Your task to perform on an android device: turn off priority inbox in the gmail app Image 0: 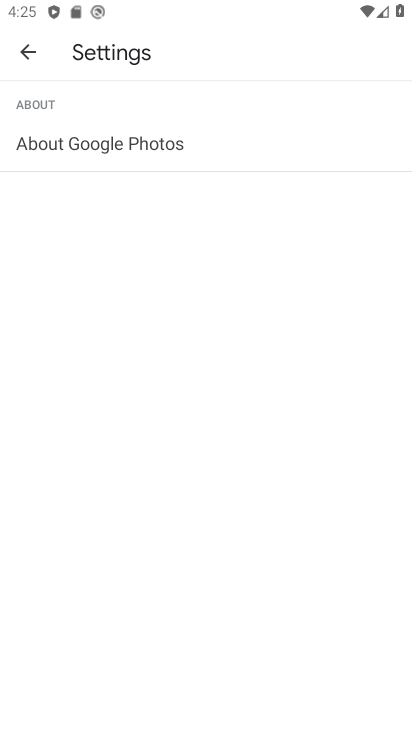
Step 0: press home button
Your task to perform on an android device: turn off priority inbox in the gmail app Image 1: 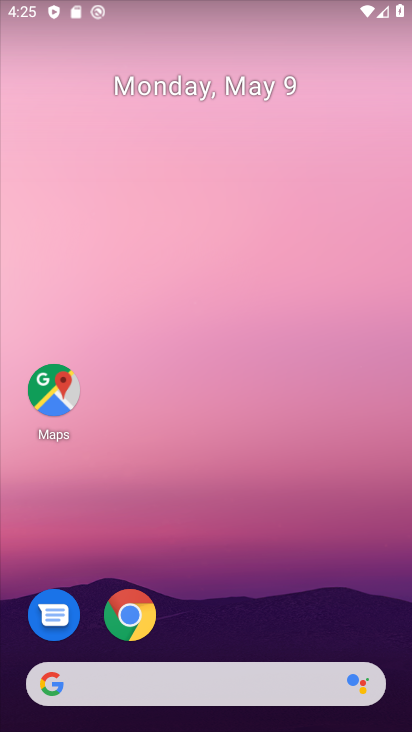
Step 1: drag from (188, 656) to (215, 319)
Your task to perform on an android device: turn off priority inbox in the gmail app Image 2: 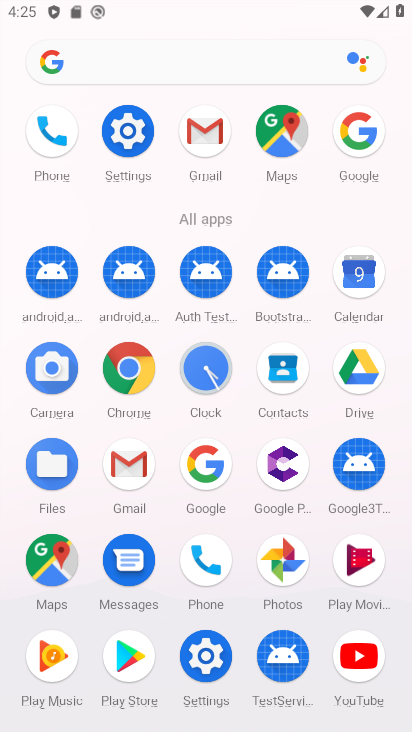
Step 2: click (216, 136)
Your task to perform on an android device: turn off priority inbox in the gmail app Image 3: 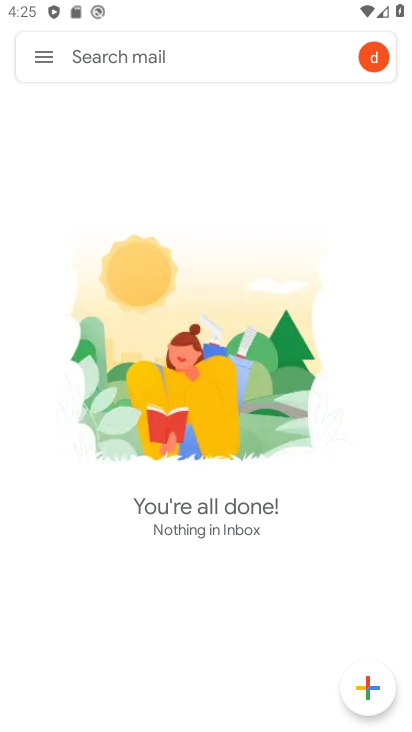
Step 3: click (27, 56)
Your task to perform on an android device: turn off priority inbox in the gmail app Image 4: 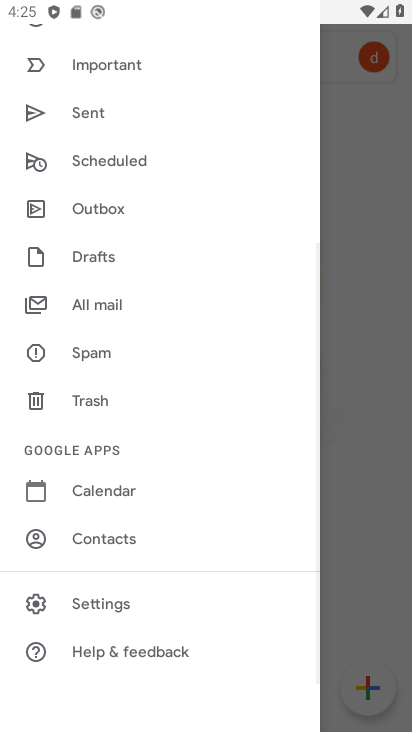
Step 4: click (110, 604)
Your task to perform on an android device: turn off priority inbox in the gmail app Image 5: 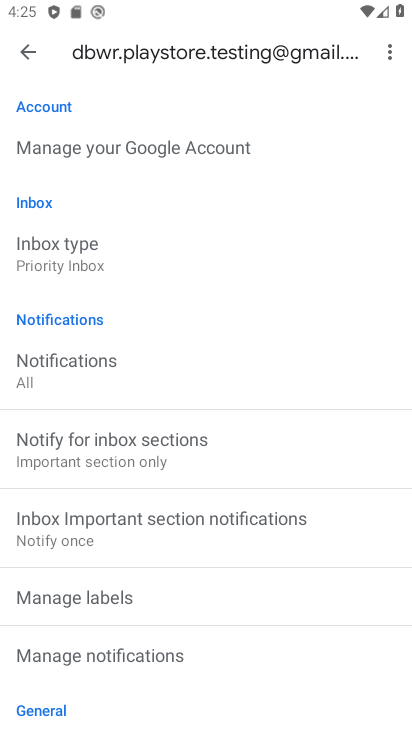
Step 5: click (56, 264)
Your task to perform on an android device: turn off priority inbox in the gmail app Image 6: 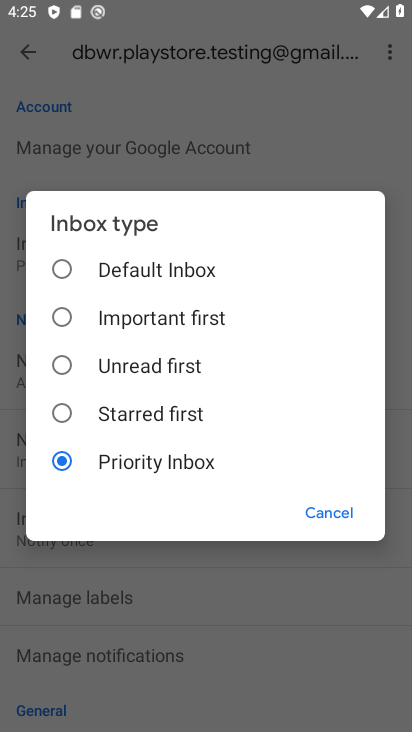
Step 6: click (69, 316)
Your task to perform on an android device: turn off priority inbox in the gmail app Image 7: 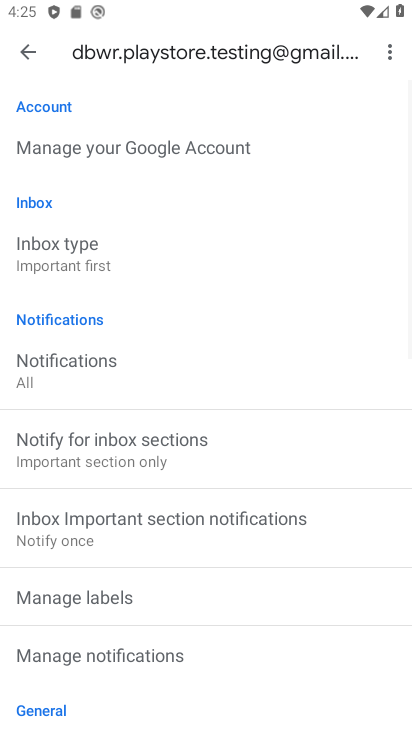
Step 7: task complete